Your task to perform on an android device: Go to location settings Image 0: 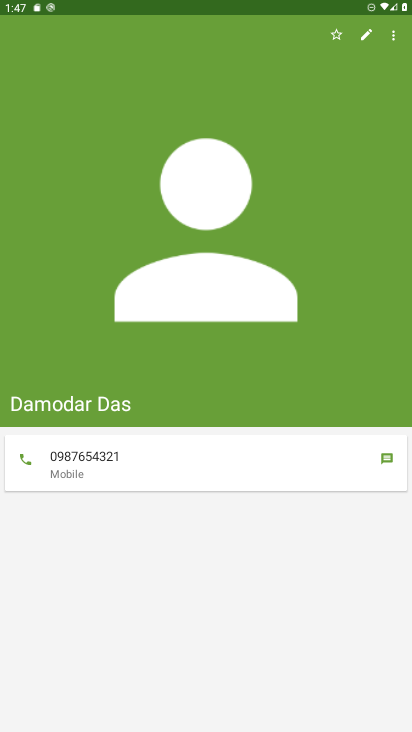
Step 0: press home button
Your task to perform on an android device: Go to location settings Image 1: 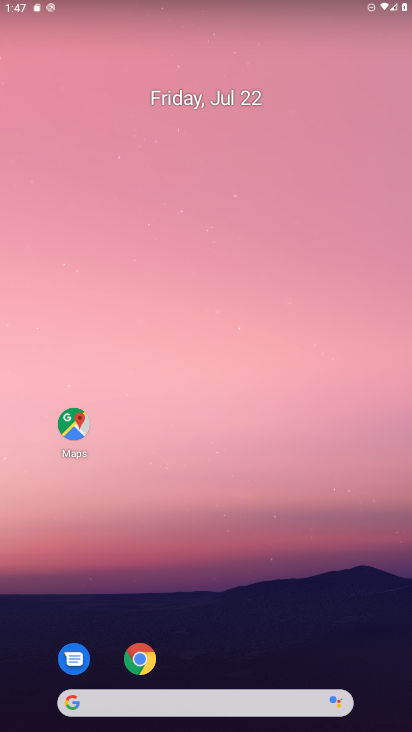
Step 1: drag from (193, 700) to (196, 162)
Your task to perform on an android device: Go to location settings Image 2: 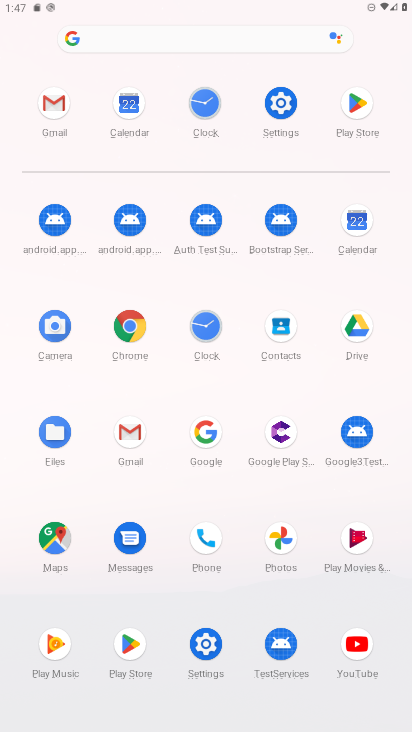
Step 2: click (284, 105)
Your task to perform on an android device: Go to location settings Image 3: 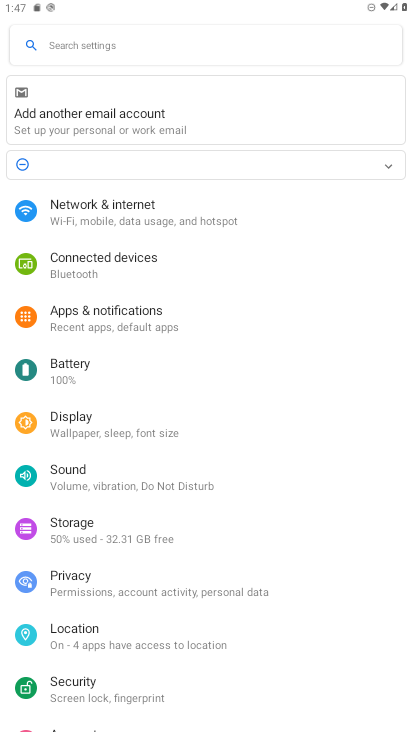
Step 3: click (89, 636)
Your task to perform on an android device: Go to location settings Image 4: 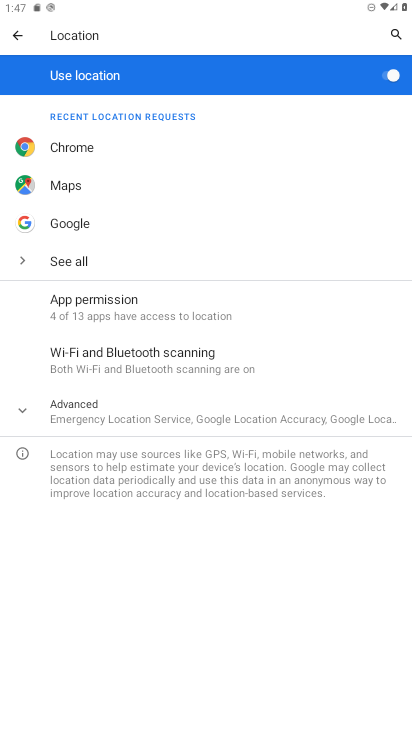
Step 4: task complete